Your task to perform on an android device: Open Youtube and go to the subscriptions tab Image 0: 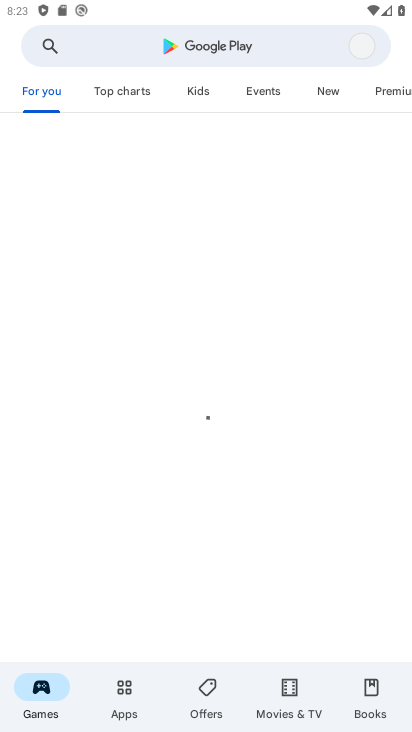
Step 0: press home button
Your task to perform on an android device: Open Youtube and go to the subscriptions tab Image 1: 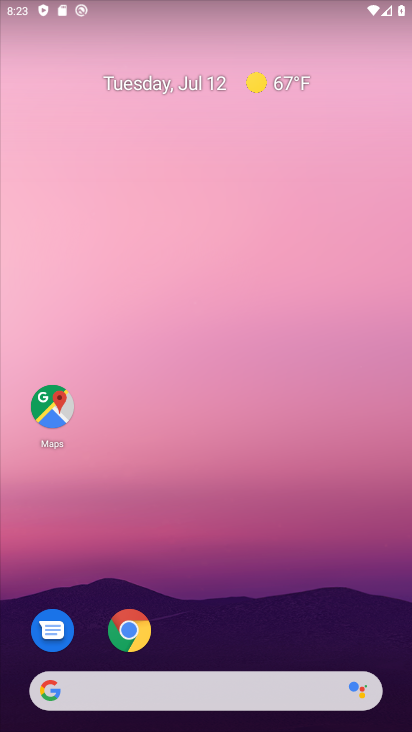
Step 1: drag from (235, 636) to (227, 150)
Your task to perform on an android device: Open Youtube and go to the subscriptions tab Image 2: 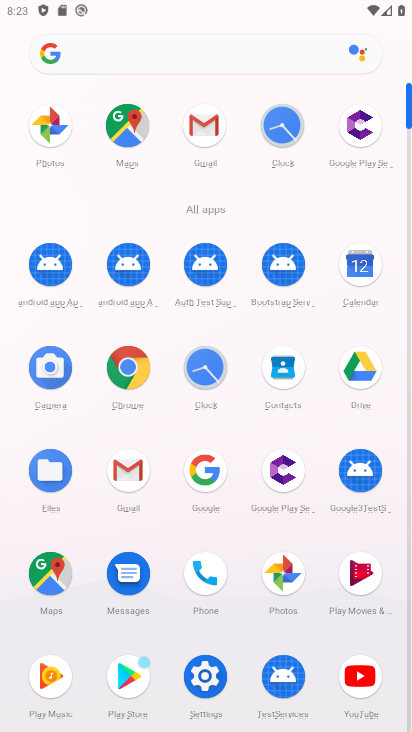
Step 2: click (368, 689)
Your task to perform on an android device: Open Youtube and go to the subscriptions tab Image 3: 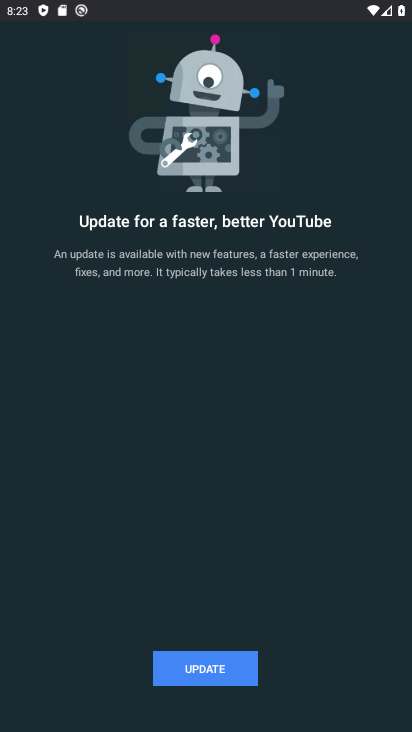
Step 3: click (222, 669)
Your task to perform on an android device: Open Youtube and go to the subscriptions tab Image 4: 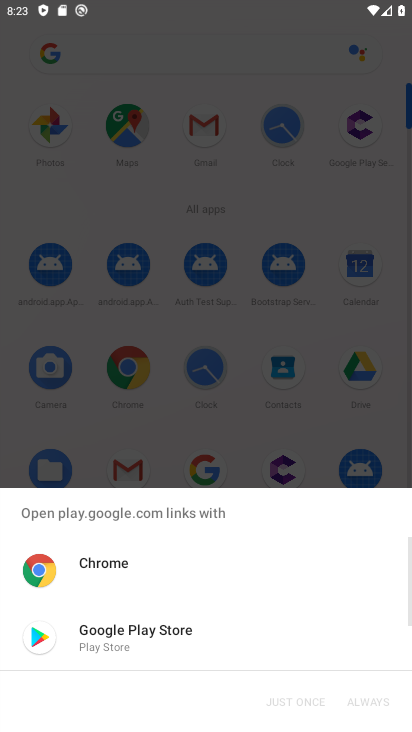
Step 4: click (215, 645)
Your task to perform on an android device: Open Youtube and go to the subscriptions tab Image 5: 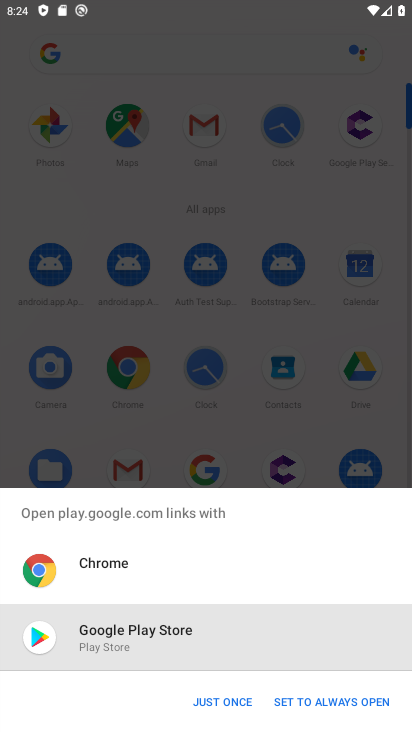
Step 5: click (223, 706)
Your task to perform on an android device: Open Youtube and go to the subscriptions tab Image 6: 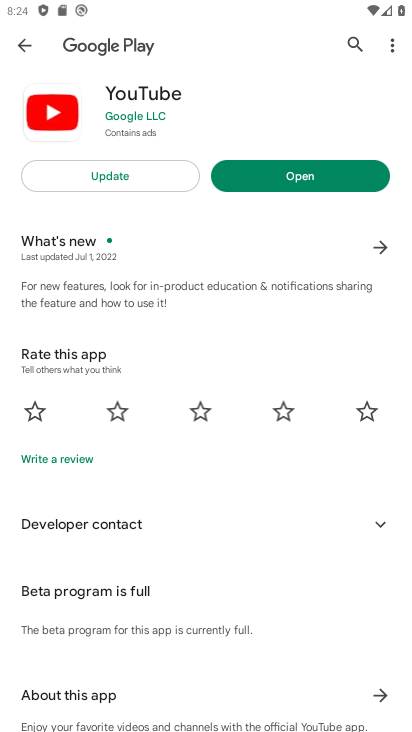
Step 6: click (153, 167)
Your task to perform on an android device: Open Youtube and go to the subscriptions tab Image 7: 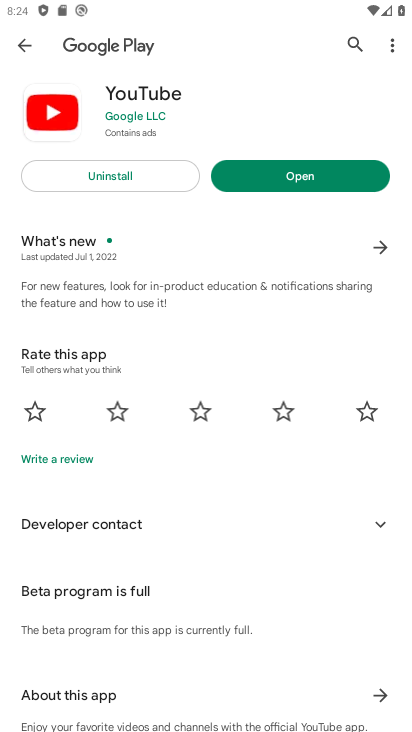
Step 7: click (358, 165)
Your task to perform on an android device: Open Youtube and go to the subscriptions tab Image 8: 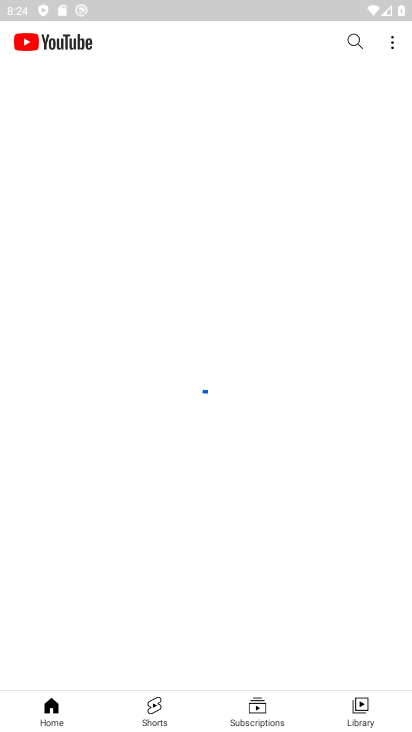
Step 8: click (263, 720)
Your task to perform on an android device: Open Youtube and go to the subscriptions tab Image 9: 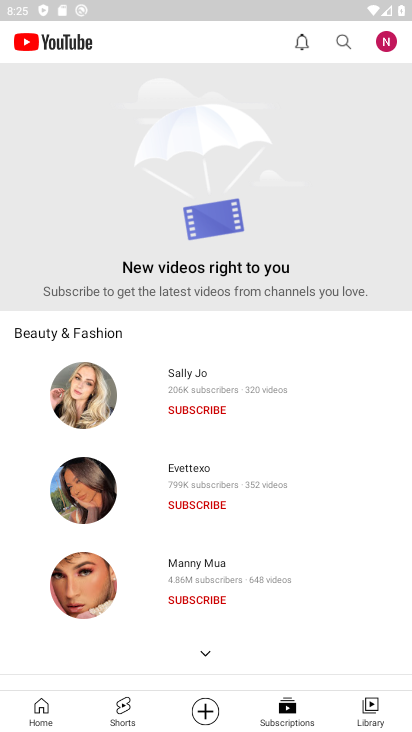
Step 9: task complete